Your task to perform on an android device: turn on the 24-hour format for clock Image 0: 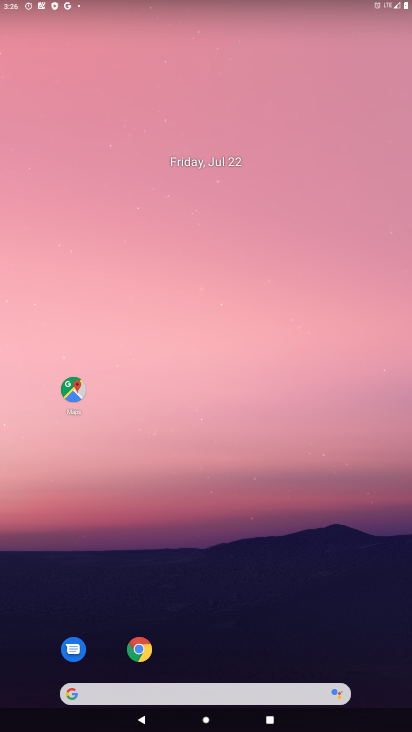
Step 0: drag from (269, 615) to (231, 128)
Your task to perform on an android device: turn on the 24-hour format for clock Image 1: 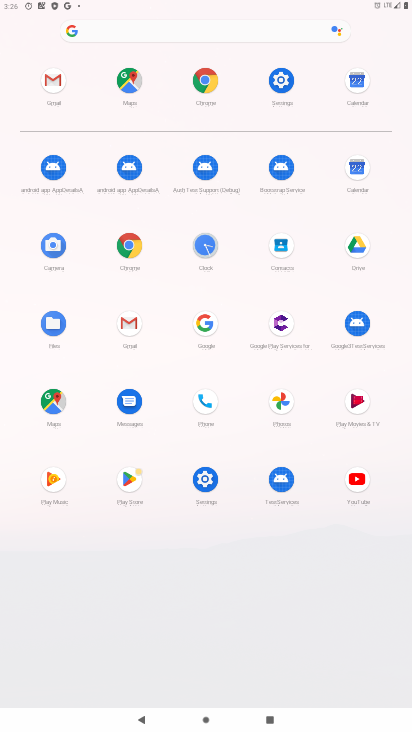
Step 1: click (205, 242)
Your task to perform on an android device: turn on the 24-hour format for clock Image 2: 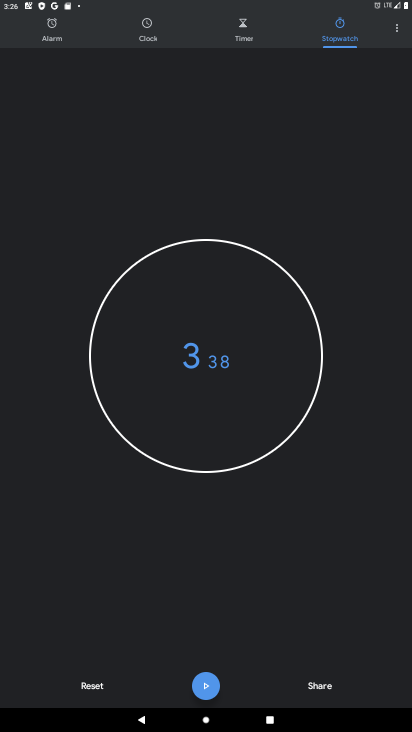
Step 2: click (401, 28)
Your task to perform on an android device: turn on the 24-hour format for clock Image 3: 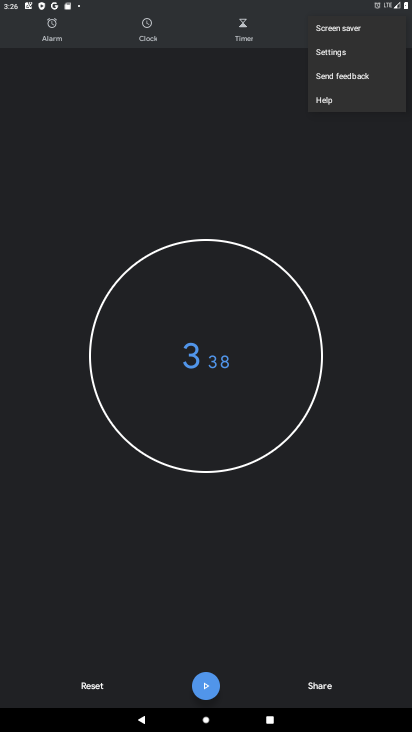
Step 3: click (343, 51)
Your task to perform on an android device: turn on the 24-hour format for clock Image 4: 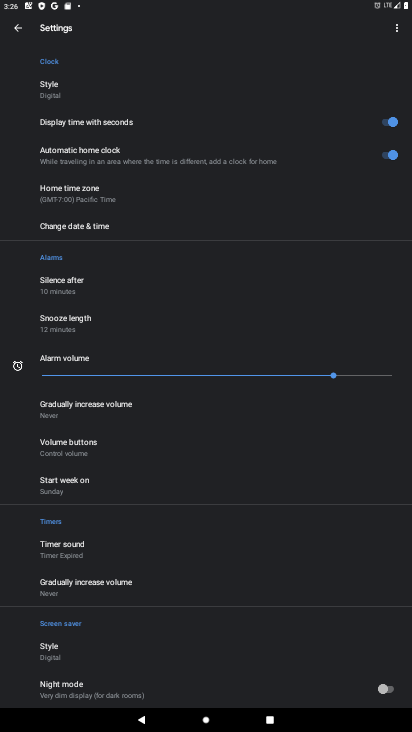
Step 4: click (87, 225)
Your task to perform on an android device: turn on the 24-hour format for clock Image 5: 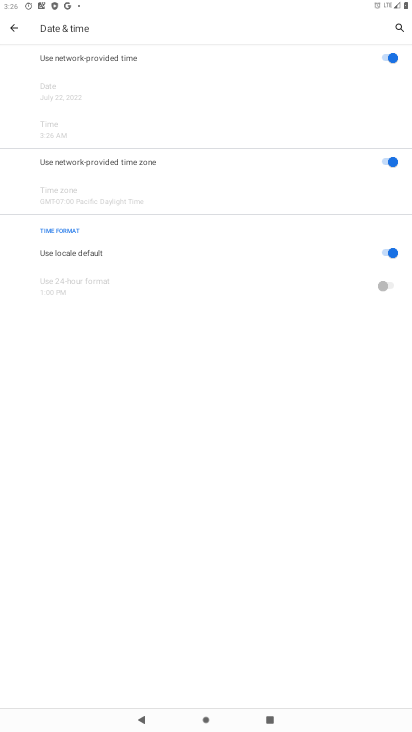
Step 5: click (381, 252)
Your task to perform on an android device: turn on the 24-hour format for clock Image 6: 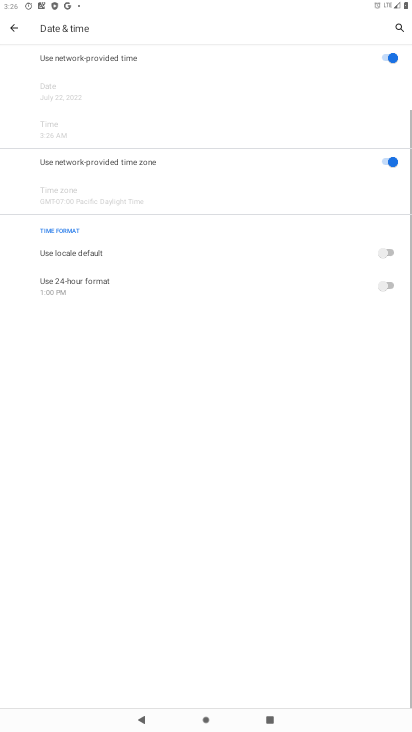
Step 6: click (388, 285)
Your task to perform on an android device: turn on the 24-hour format for clock Image 7: 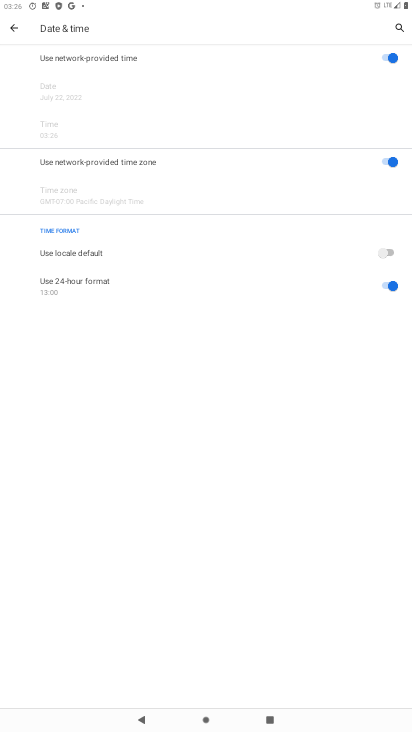
Step 7: task complete